Your task to perform on an android device: Go to Google maps Image 0: 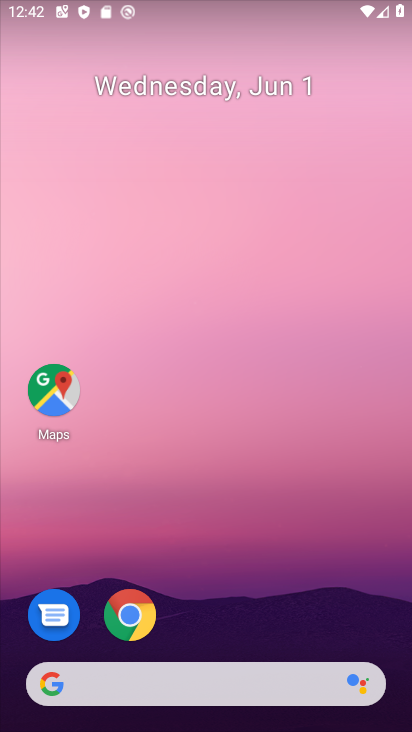
Step 0: task complete